Your task to perform on an android device: What's the weather? Image 0: 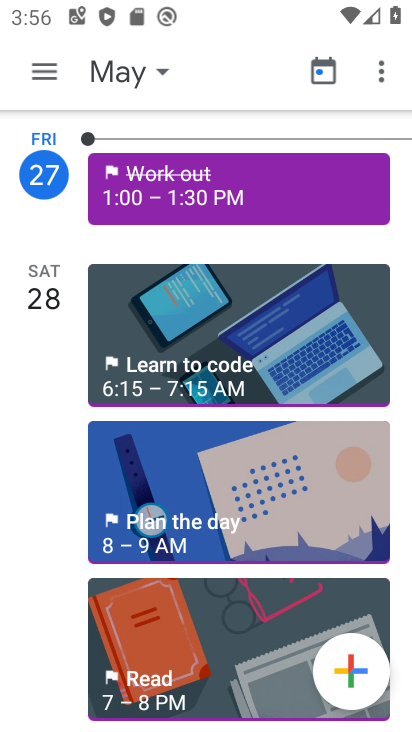
Step 0: press home button
Your task to perform on an android device: What's the weather? Image 1: 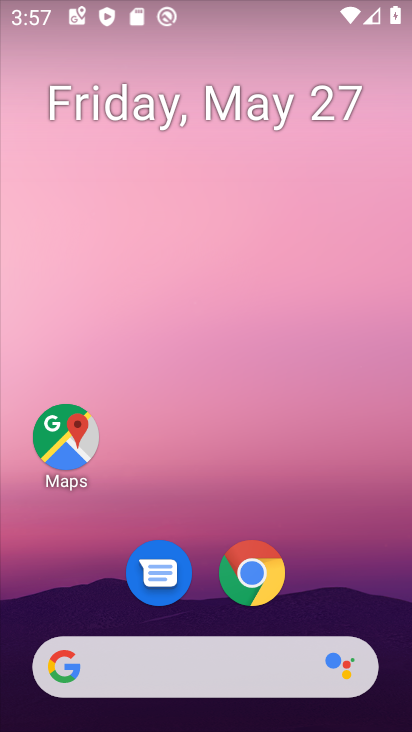
Step 1: click (252, 667)
Your task to perform on an android device: What's the weather? Image 2: 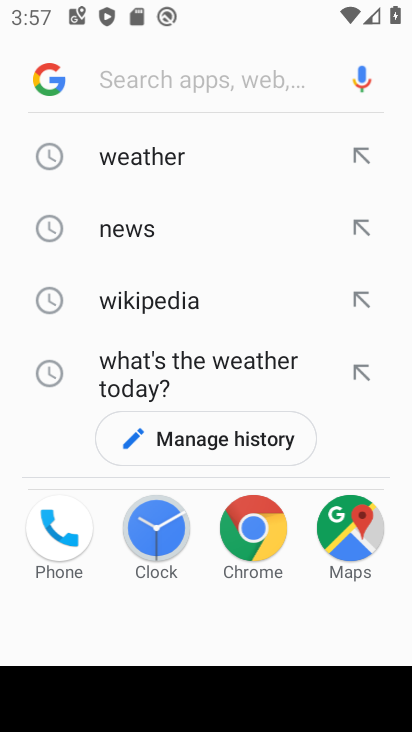
Step 2: click (160, 156)
Your task to perform on an android device: What's the weather? Image 3: 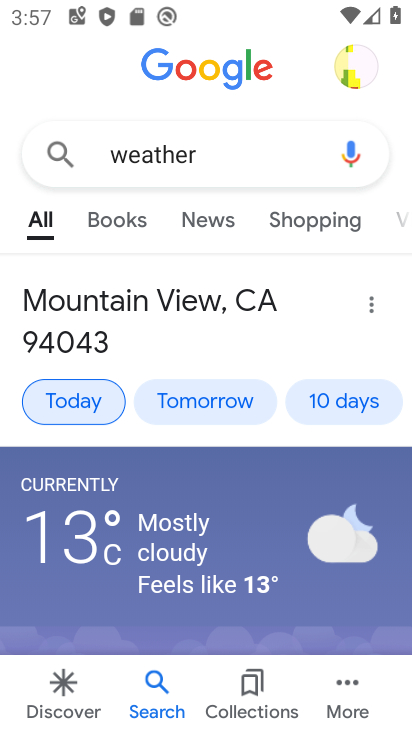
Step 3: task complete